Your task to perform on an android device: turn off javascript in the chrome app Image 0: 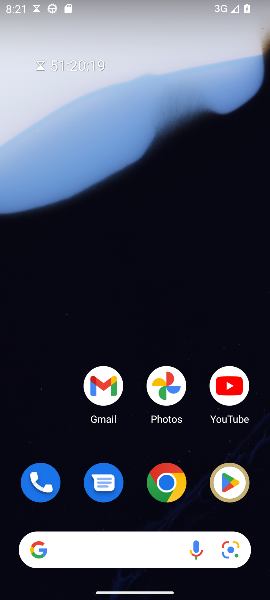
Step 0: drag from (73, 488) to (121, 110)
Your task to perform on an android device: turn off javascript in the chrome app Image 1: 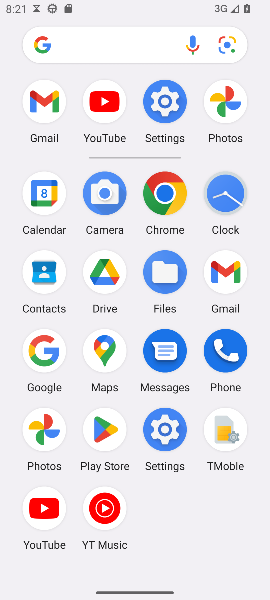
Step 1: click (152, 191)
Your task to perform on an android device: turn off javascript in the chrome app Image 2: 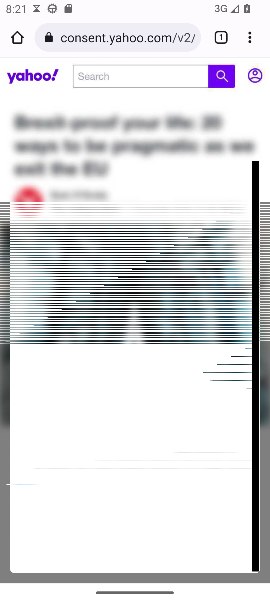
Step 2: drag from (249, 41) to (132, 517)
Your task to perform on an android device: turn off javascript in the chrome app Image 3: 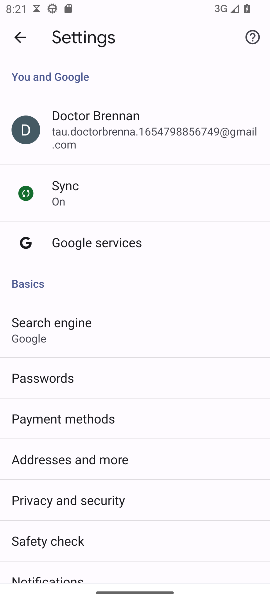
Step 3: drag from (138, 480) to (242, 90)
Your task to perform on an android device: turn off javascript in the chrome app Image 4: 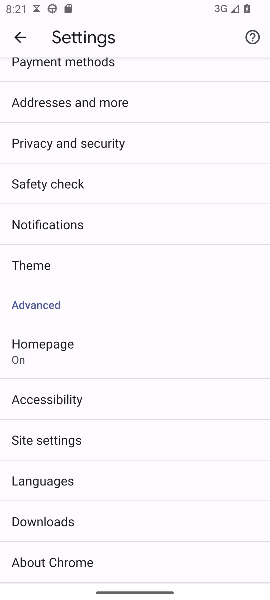
Step 4: click (41, 432)
Your task to perform on an android device: turn off javascript in the chrome app Image 5: 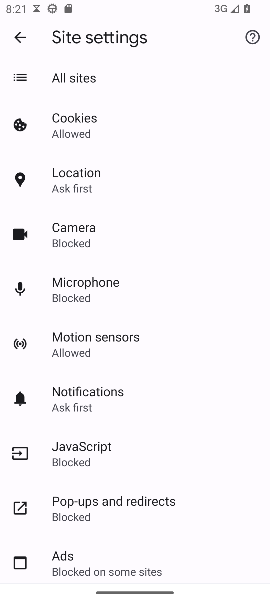
Step 5: click (54, 461)
Your task to perform on an android device: turn off javascript in the chrome app Image 6: 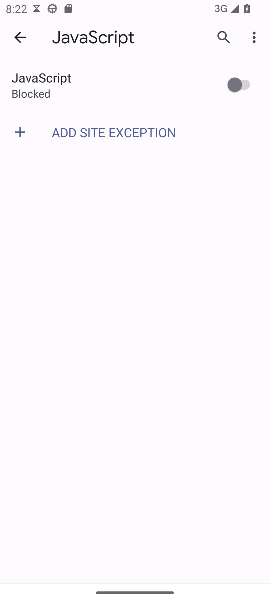
Step 6: task complete